Your task to perform on an android device: Open the web browser Image 0: 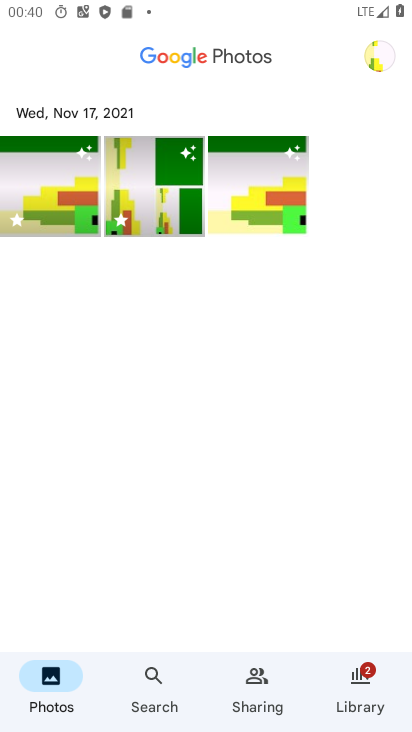
Step 0: press home button
Your task to perform on an android device: Open the web browser Image 1: 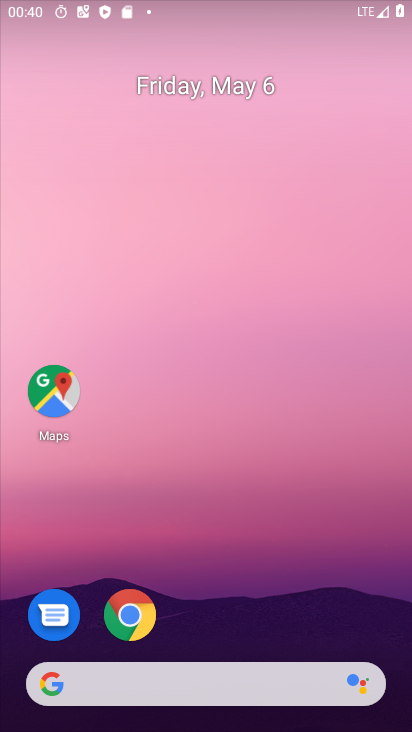
Step 1: drag from (244, 604) to (304, 31)
Your task to perform on an android device: Open the web browser Image 2: 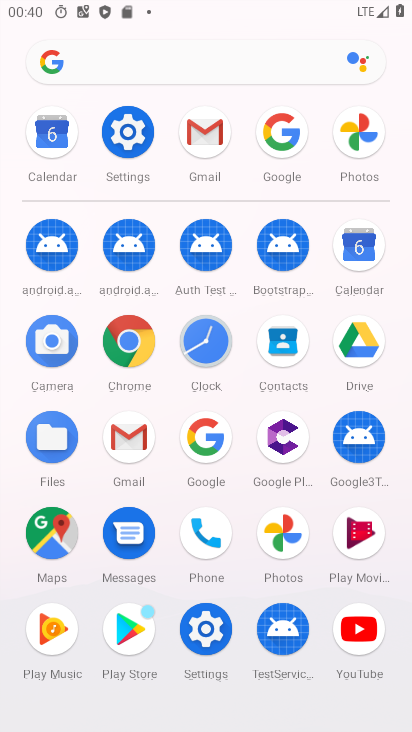
Step 2: click (207, 435)
Your task to perform on an android device: Open the web browser Image 3: 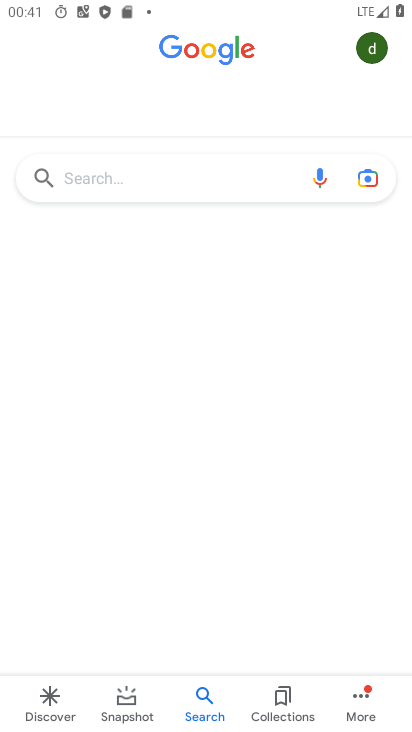
Step 3: task complete